Your task to perform on an android device: Google the capital of Panama Image 0: 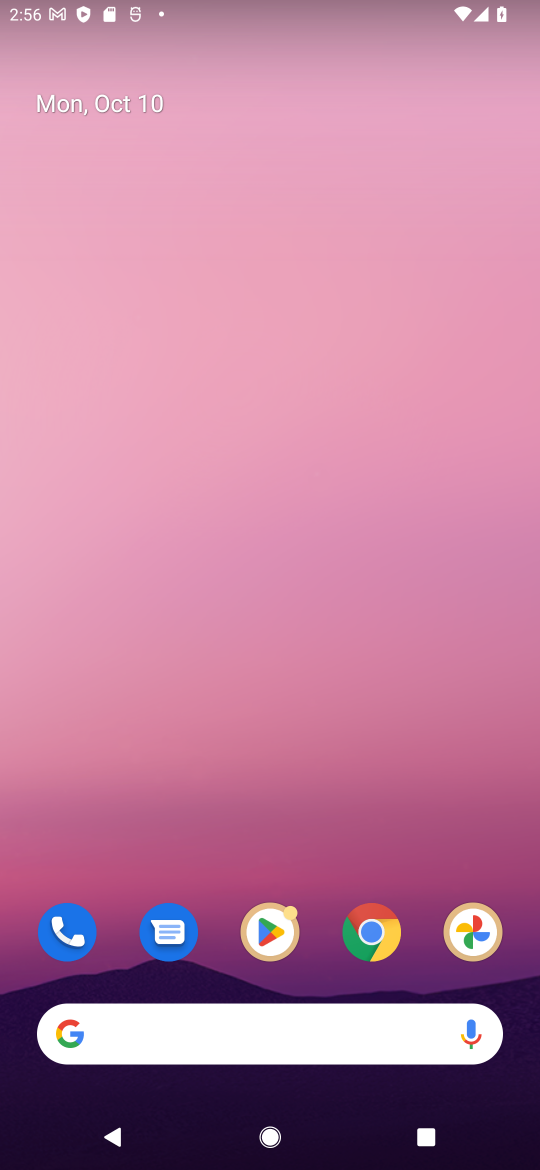
Step 0: press home button
Your task to perform on an android device: Google the capital of Panama Image 1: 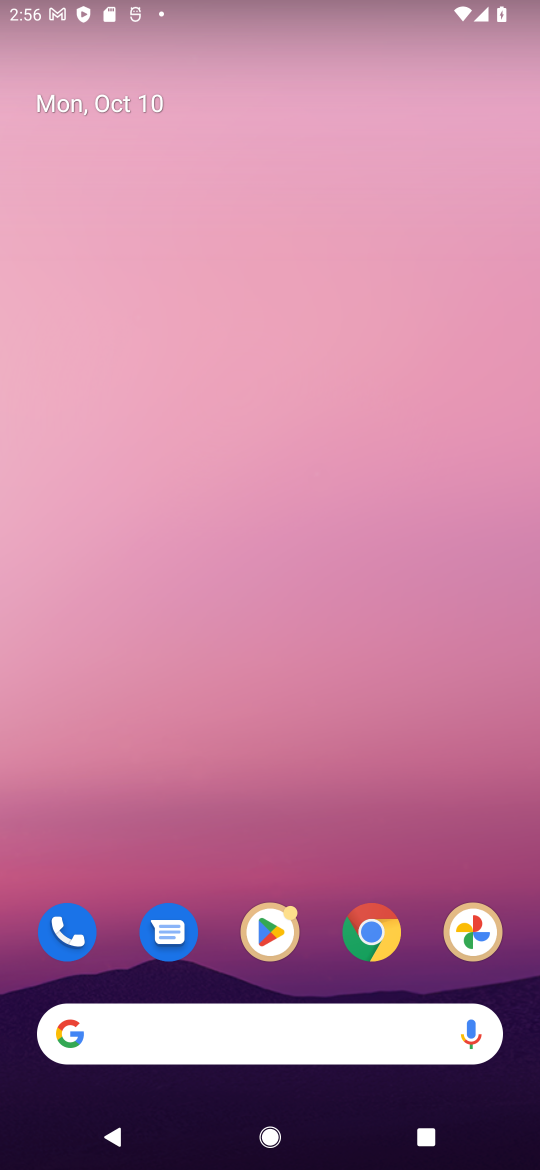
Step 1: click (363, 1029)
Your task to perform on an android device: Google the capital of Panama Image 2: 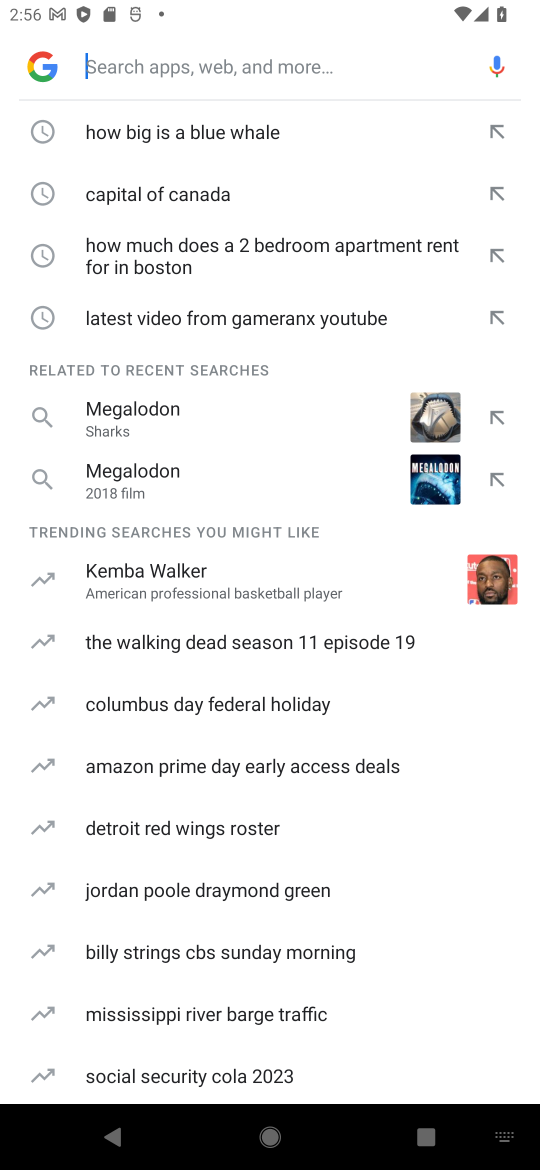
Step 2: type "Google the capital of Panama"
Your task to perform on an android device: Google the capital of Panama Image 3: 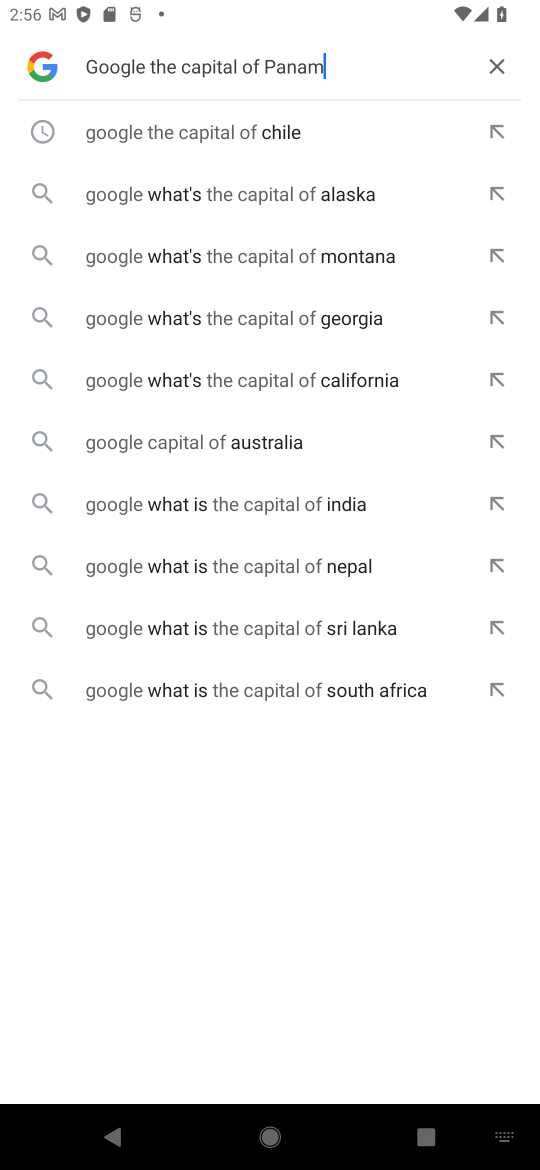
Step 3: press enter
Your task to perform on an android device: Google the capital of Panama Image 4: 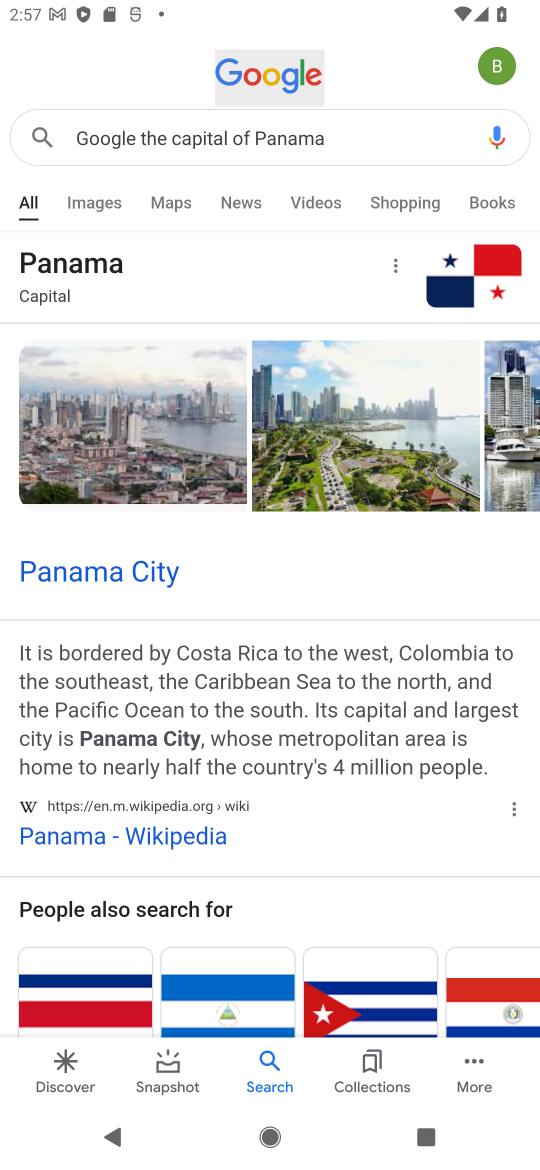
Step 4: task complete